Your task to perform on an android device: Go to Reddit.com Image 0: 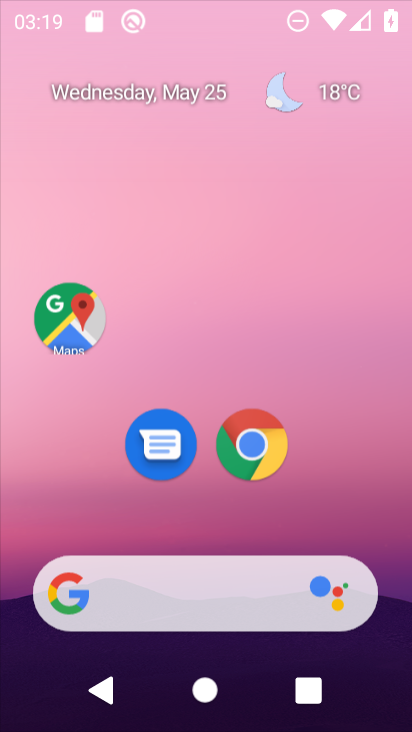
Step 0: click (249, 457)
Your task to perform on an android device: Go to Reddit.com Image 1: 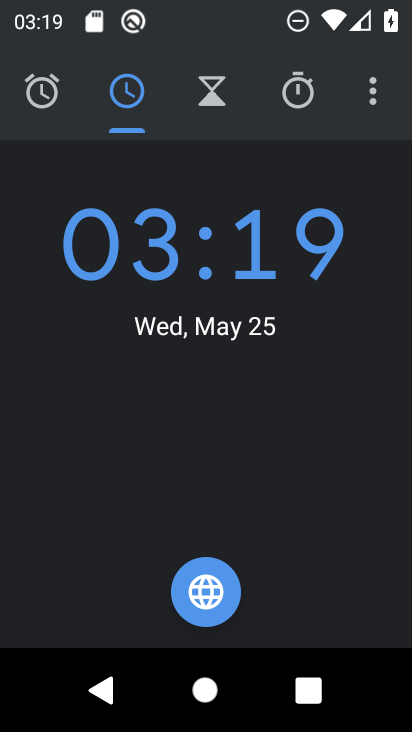
Step 1: press home button
Your task to perform on an android device: Go to Reddit.com Image 2: 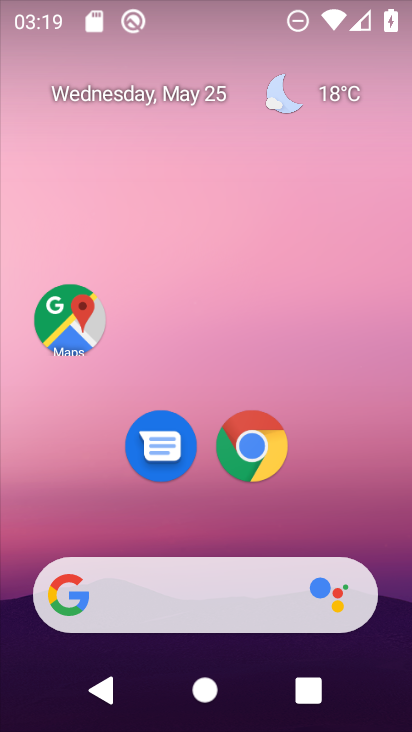
Step 2: click (242, 450)
Your task to perform on an android device: Go to Reddit.com Image 3: 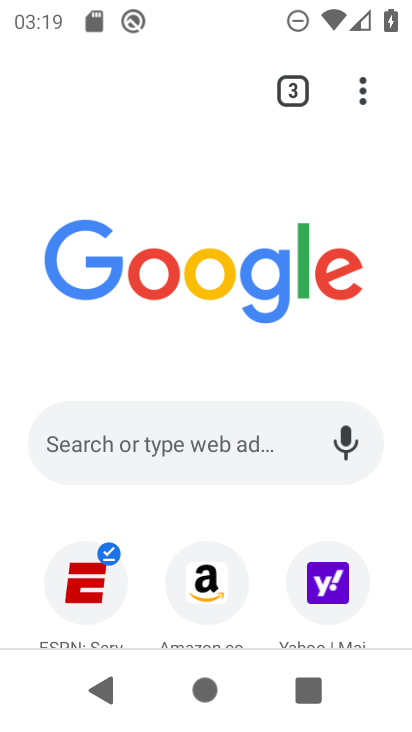
Step 3: drag from (220, 536) to (312, 236)
Your task to perform on an android device: Go to Reddit.com Image 4: 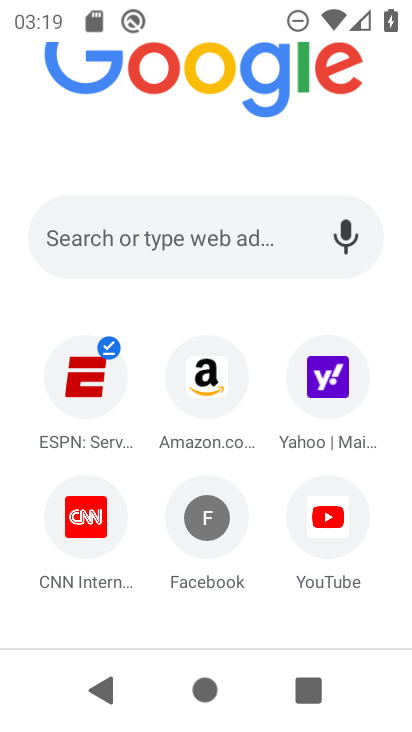
Step 4: click (223, 213)
Your task to perform on an android device: Go to Reddit.com Image 5: 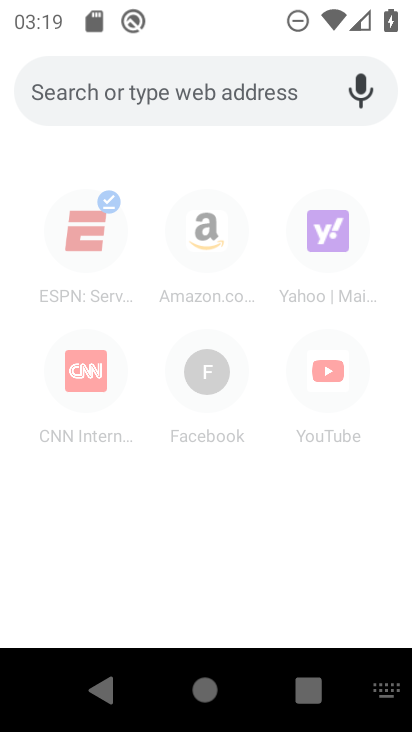
Step 5: type "reddit.com"
Your task to perform on an android device: Go to Reddit.com Image 6: 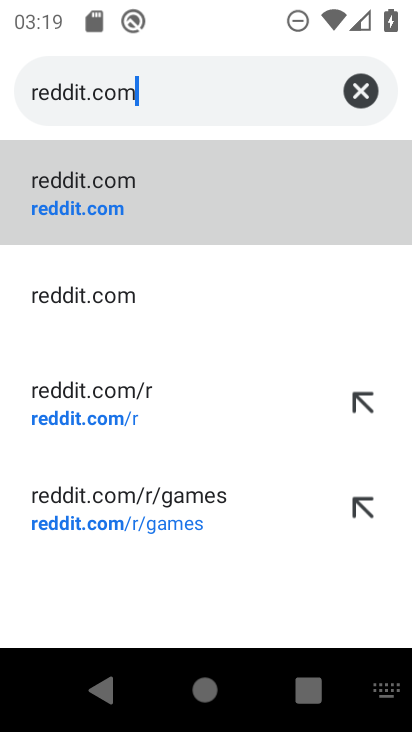
Step 6: click (288, 202)
Your task to perform on an android device: Go to Reddit.com Image 7: 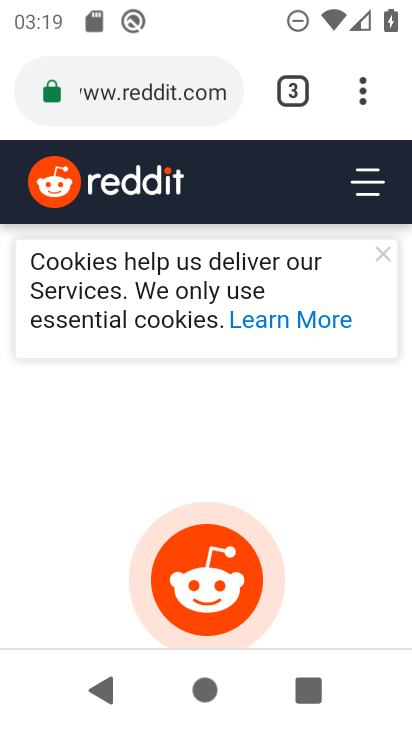
Step 7: task complete